Your task to perform on an android device: Go to settings Image 0: 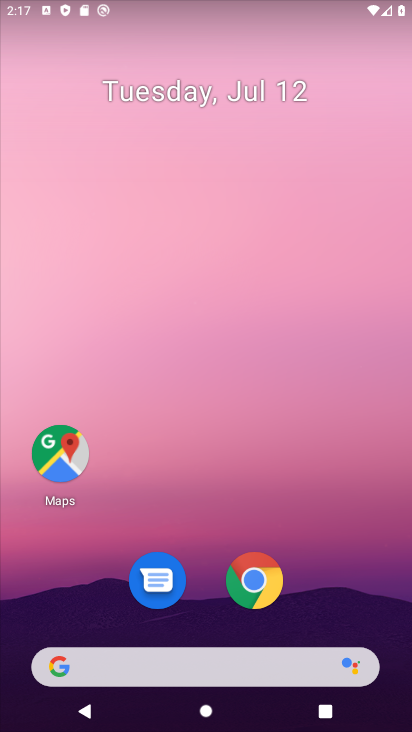
Step 0: drag from (218, 602) to (226, 250)
Your task to perform on an android device: Go to settings Image 1: 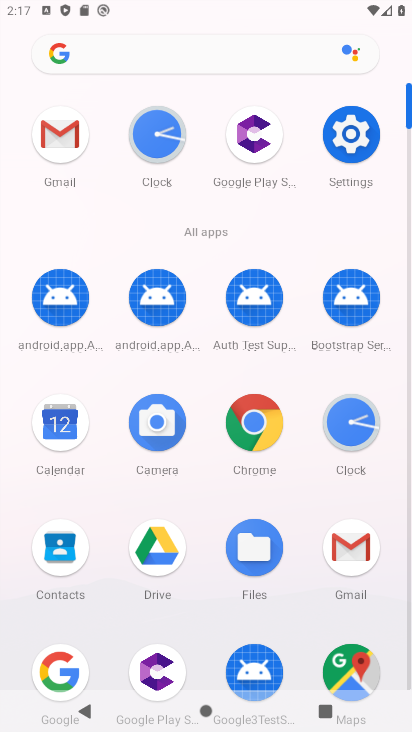
Step 1: click (333, 161)
Your task to perform on an android device: Go to settings Image 2: 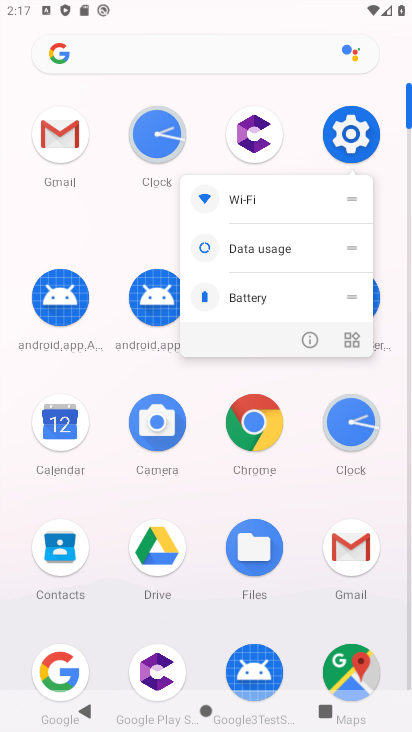
Step 2: click (345, 148)
Your task to perform on an android device: Go to settings Image 3: 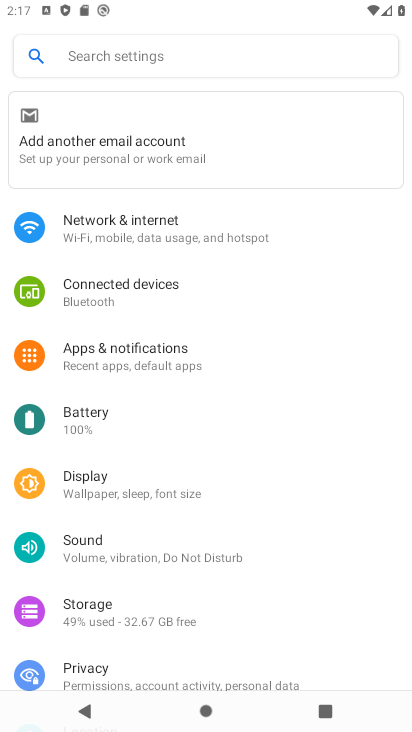
Step 3: task complete